Your task to perform on an android device: turn off priority inbox in the gmail app Image 0: 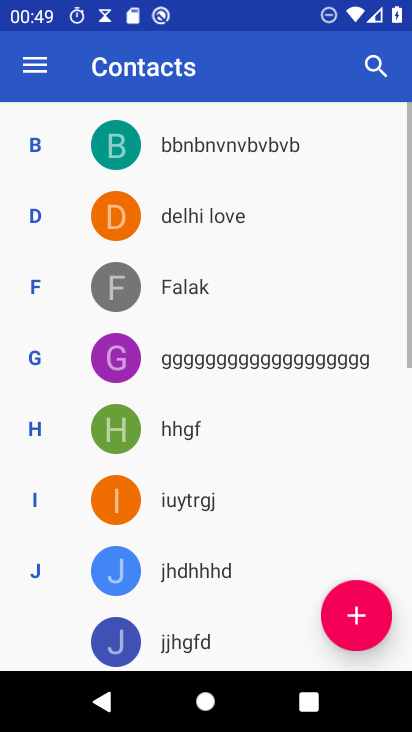
Step 0: press home button
Your task to perform on an android device: turn off priority inbox in the gmail app Image 1: 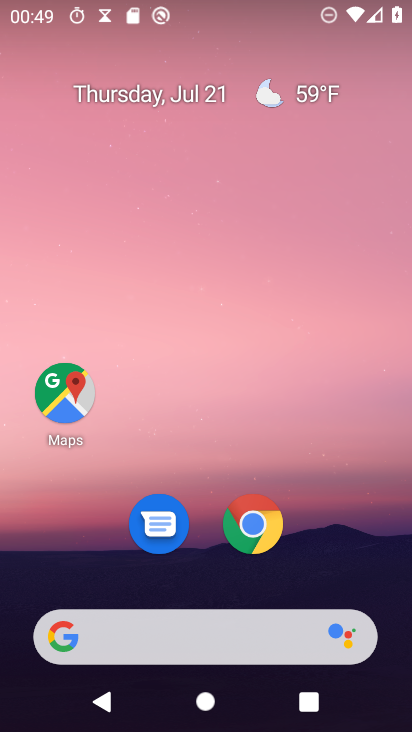
Step 1: drag from (184, 652) to (298, 242)
Your task to perform on an android device: turn off priority inbox in the gmail app Image 2: 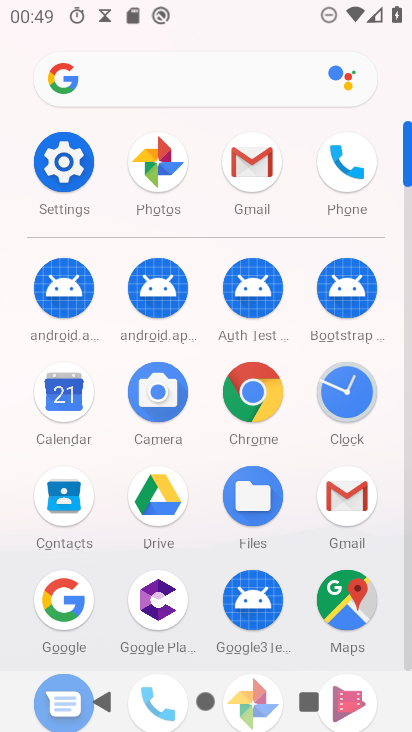
Step 2: click (242, 171)
Your task to perform on an android device: turn off priority inbox in the gmail app Image 3: 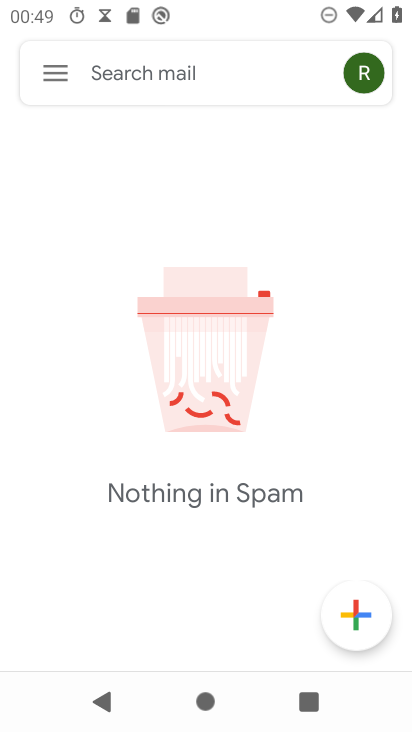
Step 3: click (56, 72)
Your task to perform on an android device: turn off priority inbox in the gmail app Image 4: 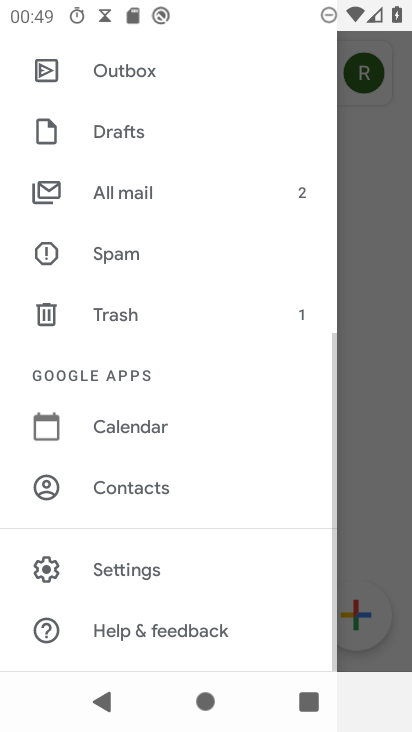
Step 4: click (118, 572)
Your task to perform on an android device: turn off priority inbox in the gmail app Image 5: 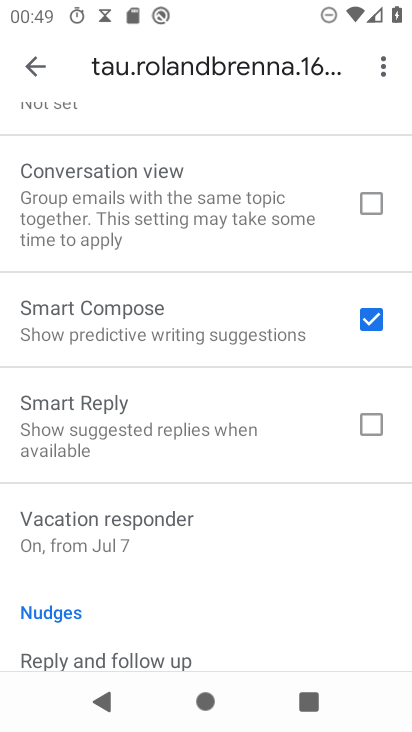
Step 5: drag from (281, 153) to (271, 581)
Your task to perform on an android device: turn off priority inbox in the gmail app Image 6: 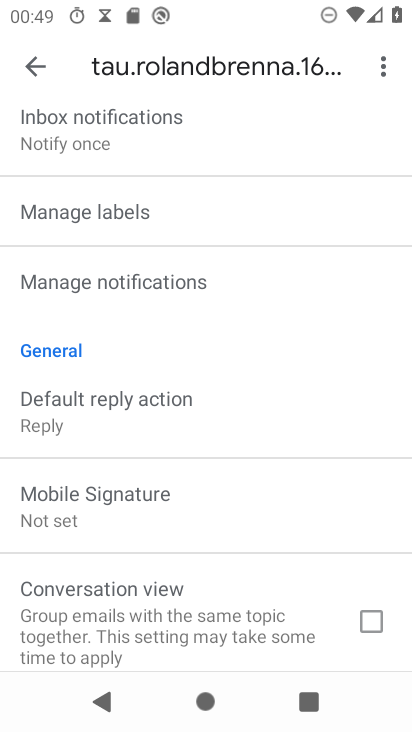
Step 6: drag from (307, 213) to (326, 574)
Your task to perform on an android device: turn off priority inbox in the gmail app Image 7: 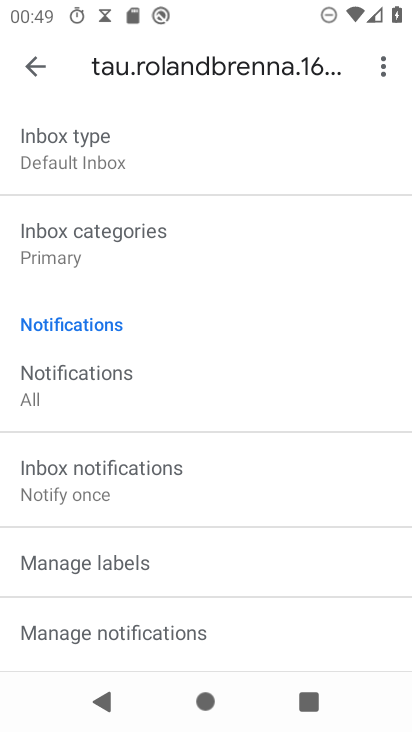
Step 7: click (98, 152)
Your task to perform on an android device: turn off priority inbox in the gmail app Image 8: 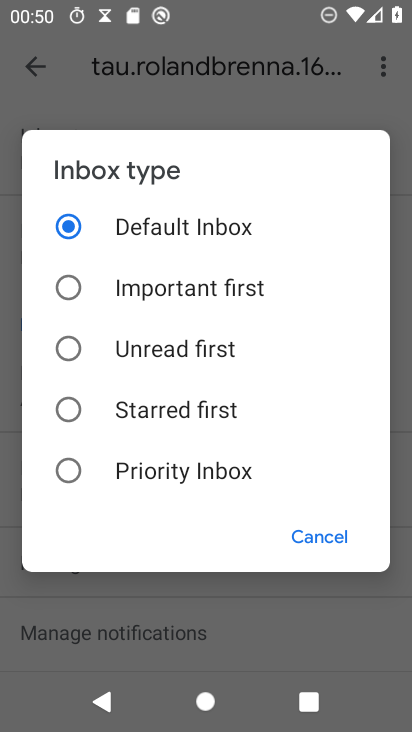
Step 8: task complete